Your task to perform on an android device: clear all cookies in the chrome app Image 0: 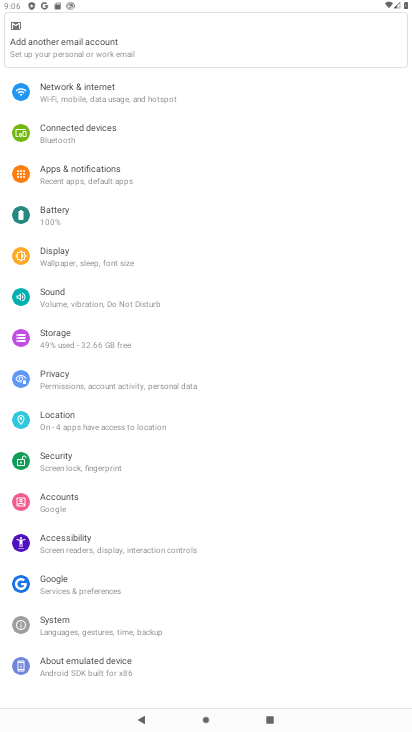
Step 0: press home button
Your task to perform on an android device: clear all cookies in the chrome app Image 1: 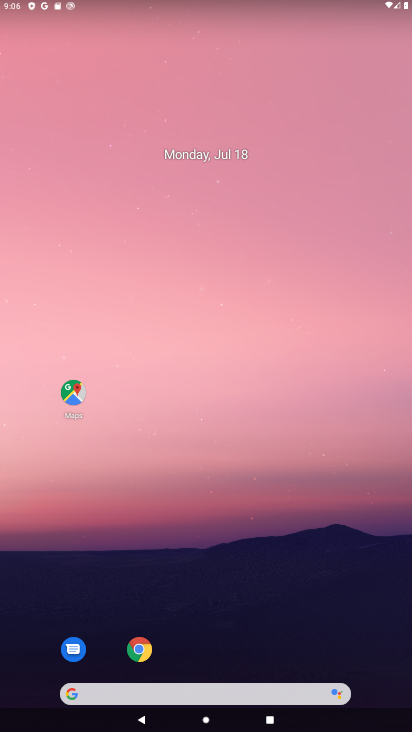
Step 1: drag from (284, 647) to (166, 131)
Your task to perform on an android device: clear all cookies in the chrome app Image 2: 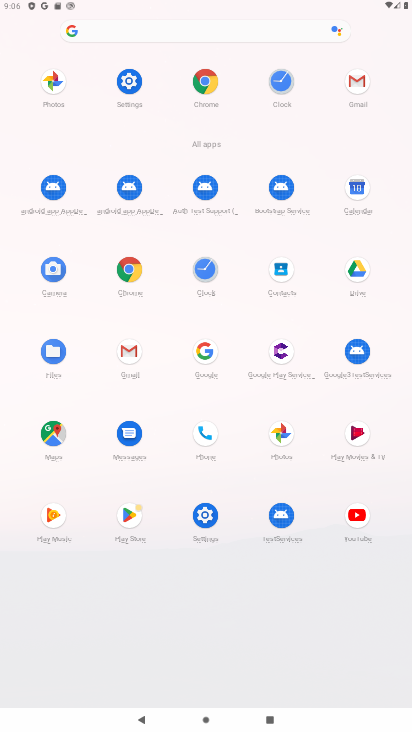
Step 2: click (131, 265)
Your task to perform on an android device: clear all cookies in the chrome app Image 3: 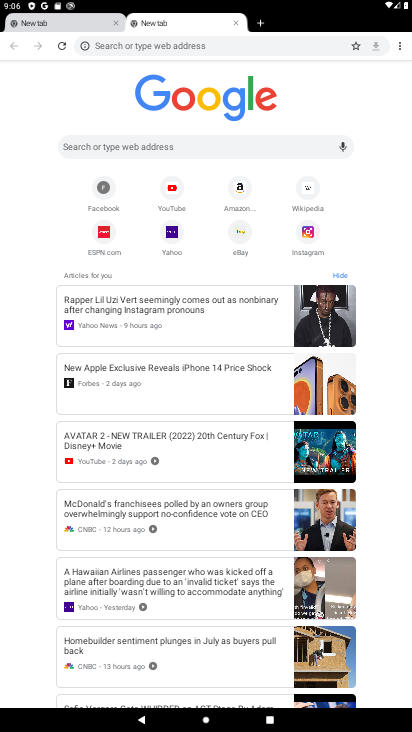
Step 3: drag from (394, 41) to (310, 210)
Your task to perform on an android device: clear all cookies in the chrome app Image 4: 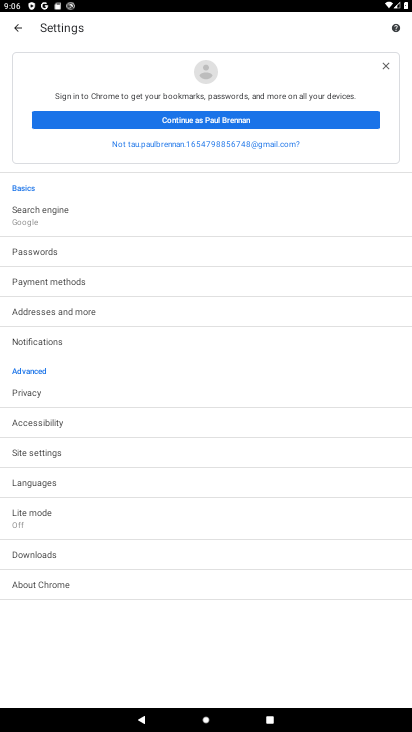
Step 4: click (49, 403)
Your task to perform on an android device: clear all cookies in the chrome app Image 5: 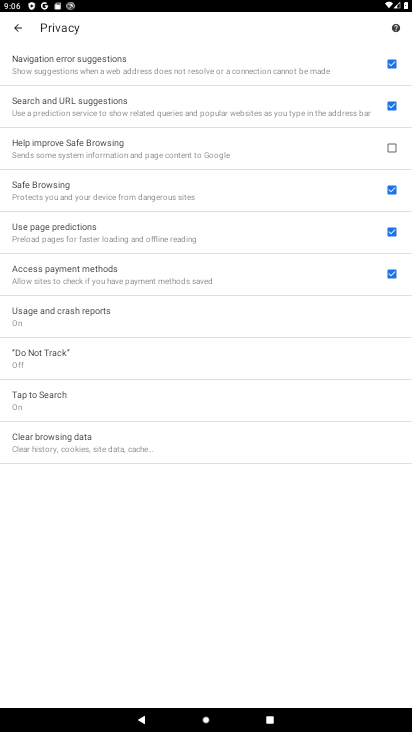
Step 5: click (47, 430)
Your task to perform on an android device: clear all cookies in the chrome app Image 6: 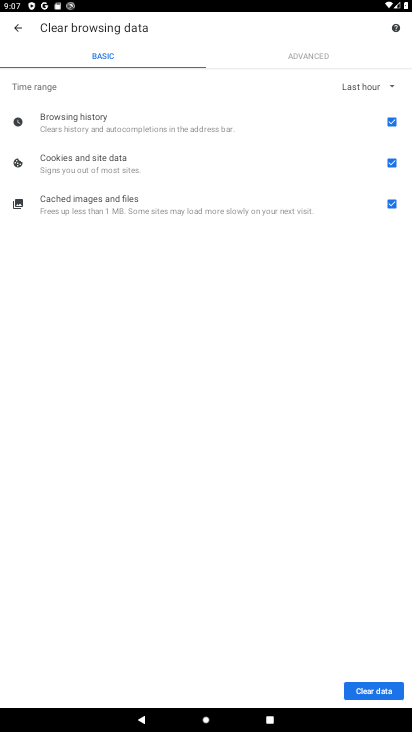
Step 6: click (377, 691)
Your task to perform on an android device: clear all cookies in the chrome app Image 7: 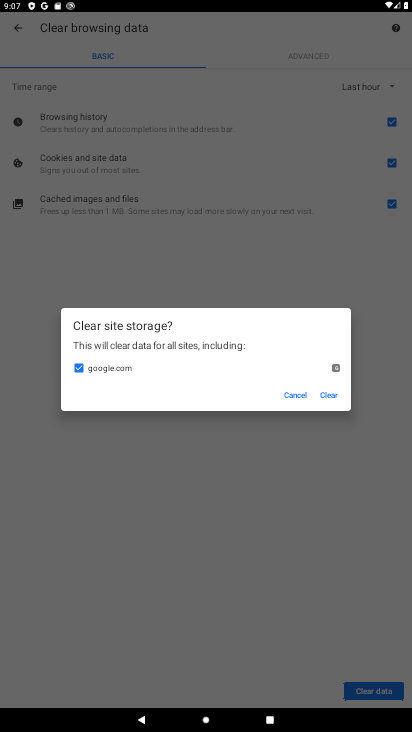
Step 7: click (327, 397)
Your task to perform on an android device: clear all cookies in the chrome app Image 8: 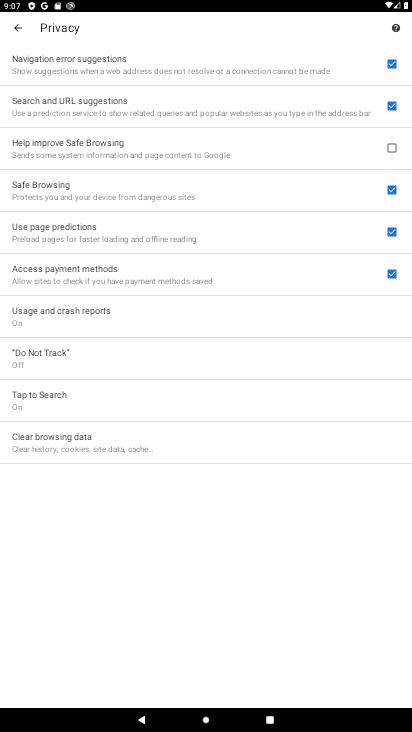
Step 8: task complete